Your task to perform on an android device: View the shopping cart on amazon. Image 0: 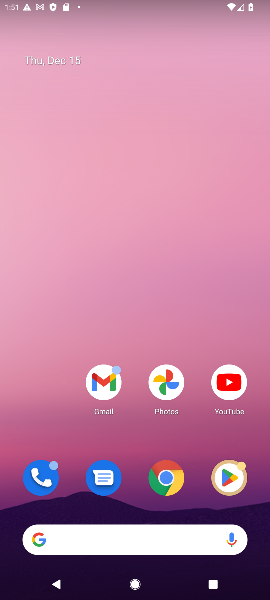
Step 0: click (146, 480)
Your task to perform on an android device: View the shopping cart on amazon. Image 1: 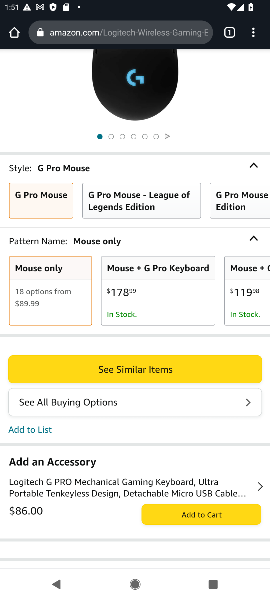
Step 1: drag from (181, 137) to (158, 487)
Your task to perform on an android device: View the shopping cart on amazon. Image 2: 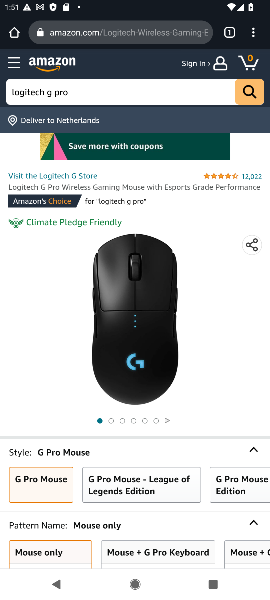
Step 2: click (254, 66)
Your task to perform on an android device: View the shopping cart on amazon. Image 3: 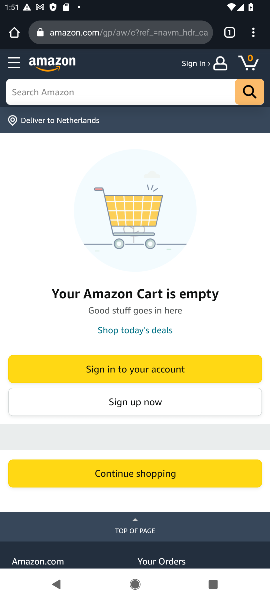
Step 3: task complete